Your task to perform on an android device: Go to internet settings Image 0: 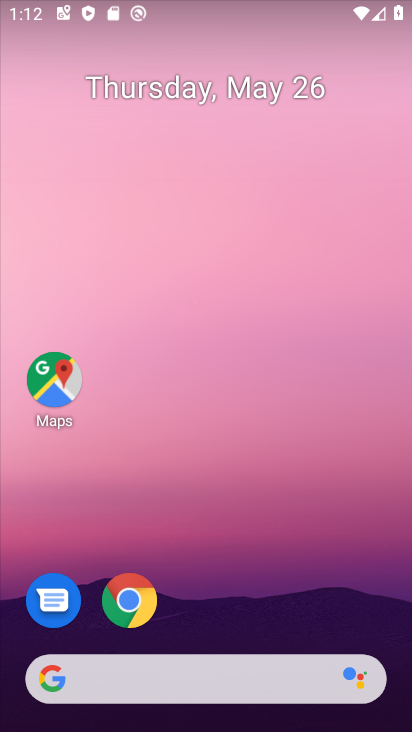
Step 0: drag from (156, 682) to (200, 188)
Your task to perform on an android device: Go to internet settings Image 1: 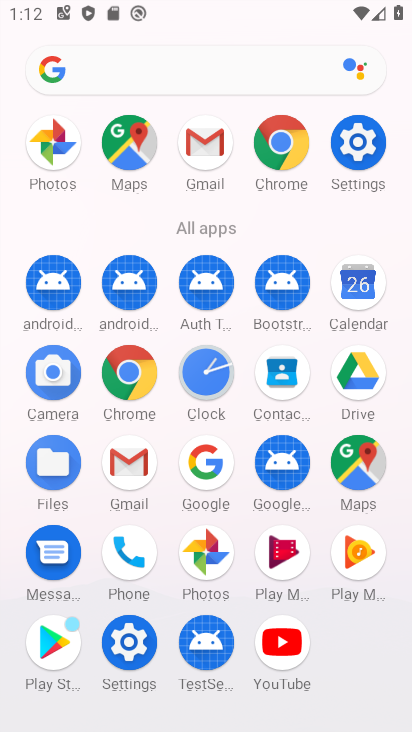
Step 1: click (365, 146)
Your task to perform on an android device: Go to internet settings Image 2: 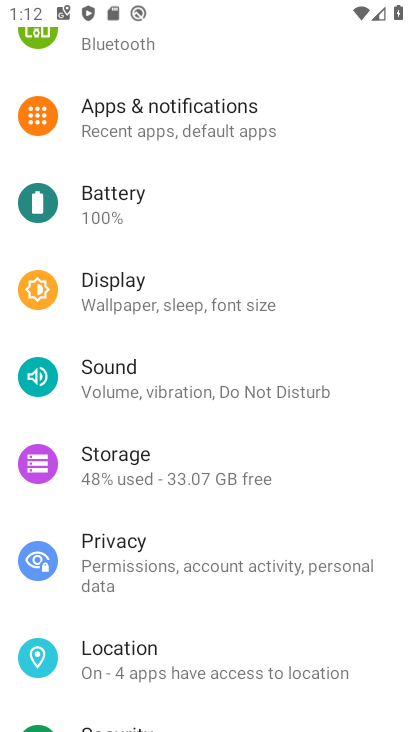
Step 2: drag from (129, 150) to (160, 606)
Your task to perform on an android device: Go to internet settings Image 3: 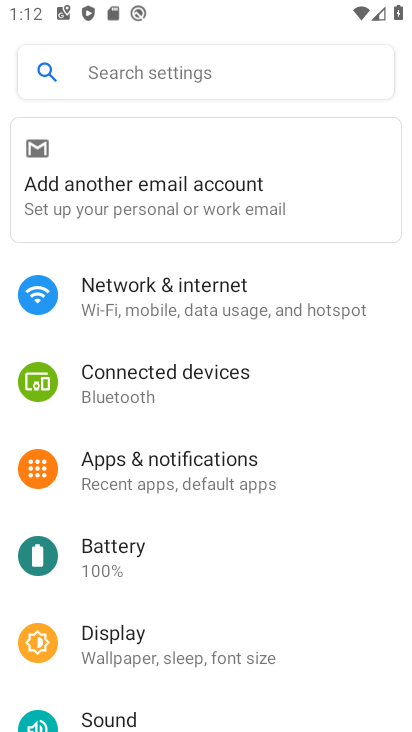
Step 3: click (177, 324)
Your task to perform on an android device: Go to internet settings Image 4: 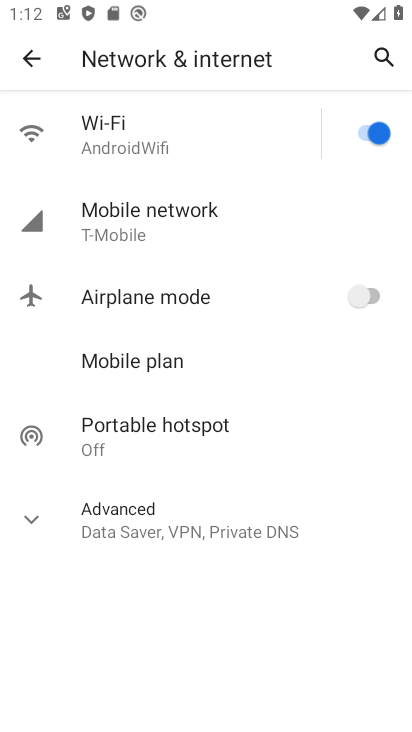
Step 4: task complete